Your task to perform on an android device: Go to wifi settings Image 0: 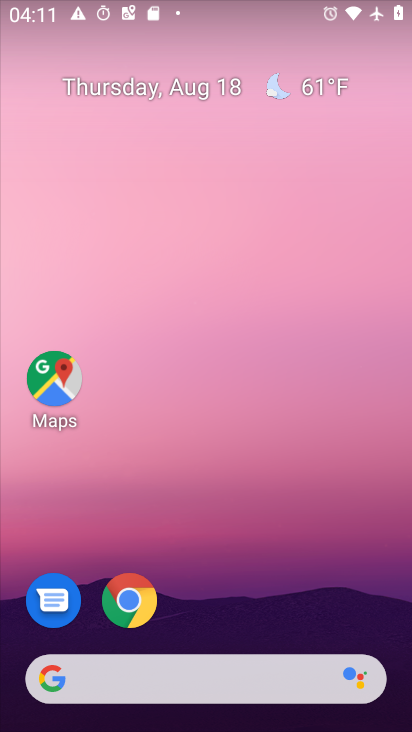
Step 0: drag from (224, 618) to (254, 66)
Your task to perform on an android device: Go to wifi settings Image 1: 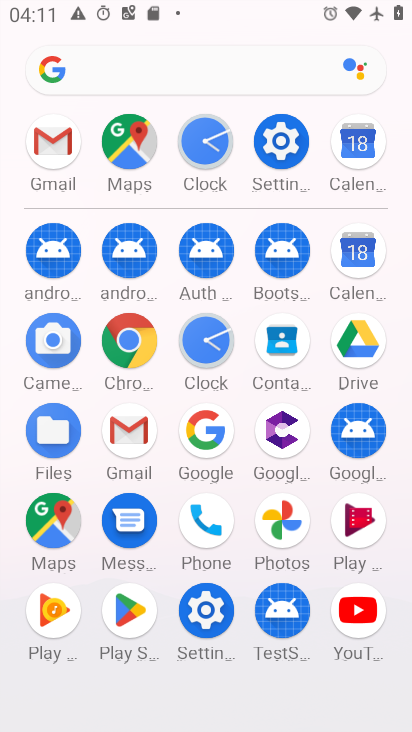
Step 1: click (290, 130)
Your task to perform on an android device: Go to wifi settings Image 2: 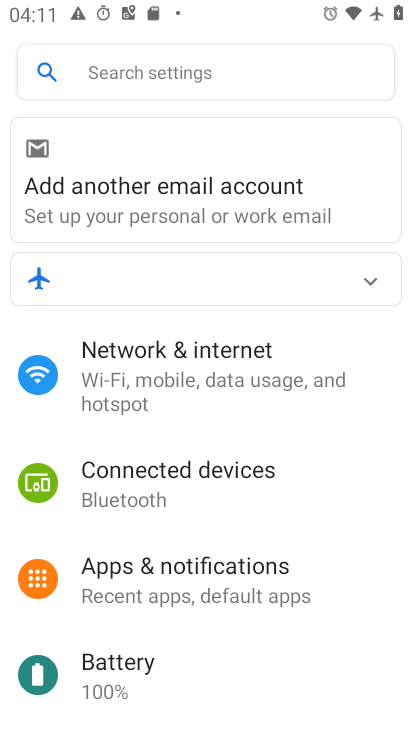
Step 2: click (109, 386)
Your task to perform on an android device: Go to wifi settings Image 3: 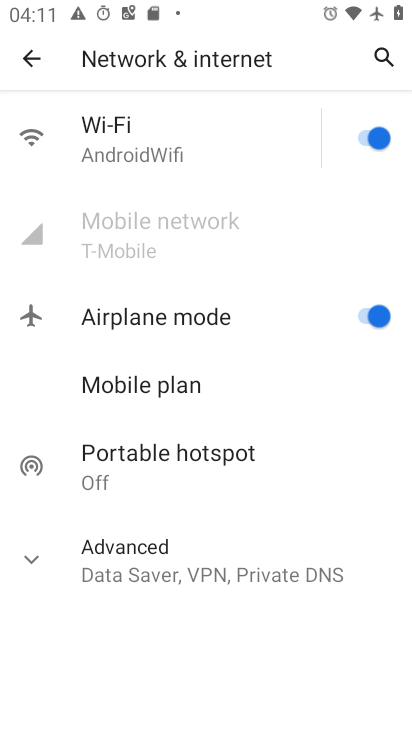
Step 3: click (110, 147)
Your task to perform on an android device: Go to wifi settings Image 4: 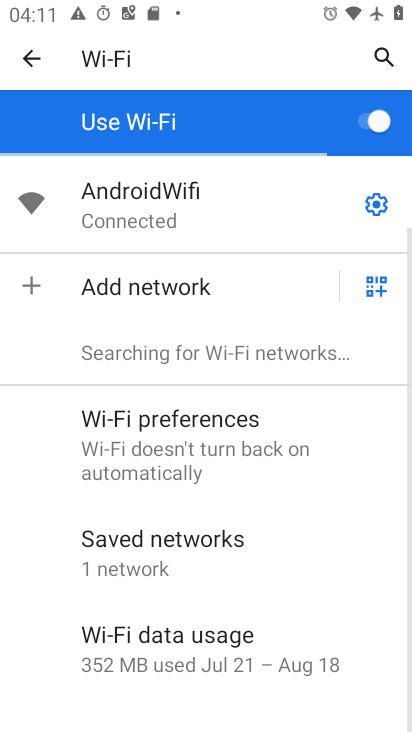
Step 4: click (140, 220)
Your task to perform on an android device: Go to wifi settings Image 5: 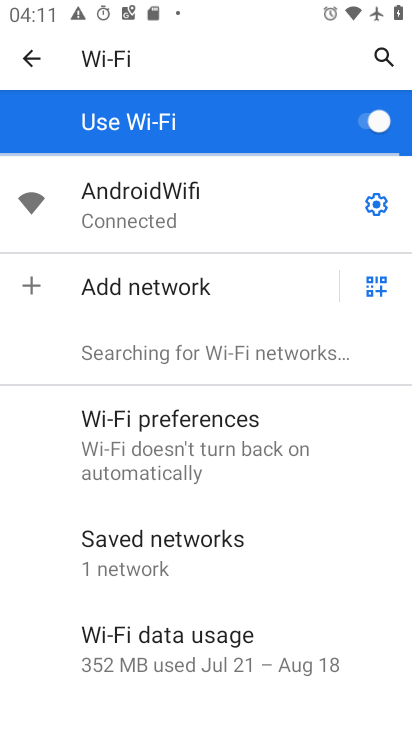
Step 5: click (134, 198)
Your task to perform on an android device: Go to wifi settings Image 6: 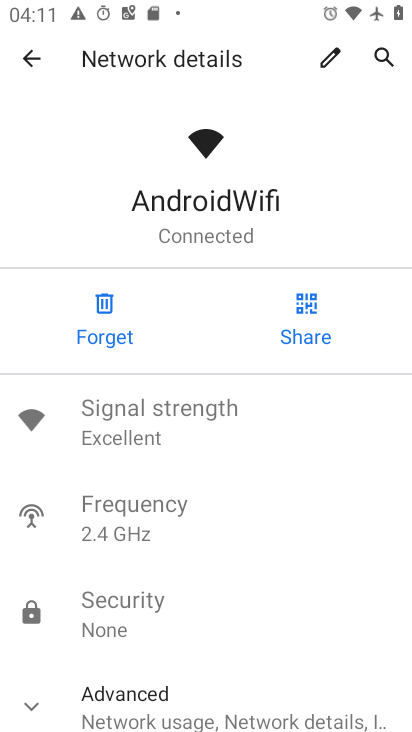
Step 6: task complete